Your task to perform on an android device: open app "Pluto TV - Live TV and Movies" Image 0: 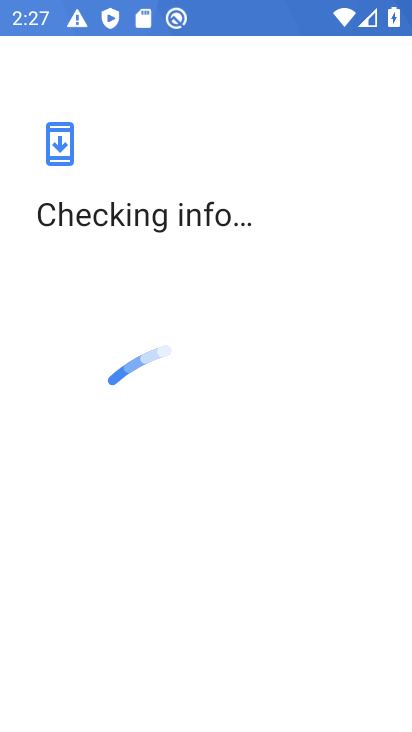
Step 0: task impossible